Your task to perform on an android device: What's on my calendar tomorrow? Image 0: 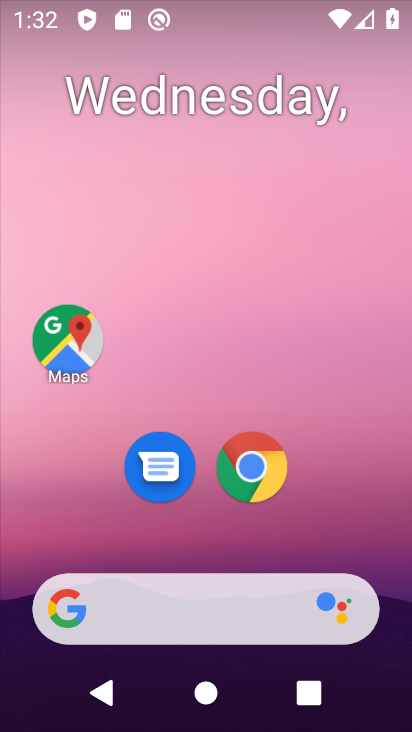
Step 0: drag from (365, 515) to (213, 69)
Your task to perform on an android device: What's on my calendar tomorrow? Image 1: 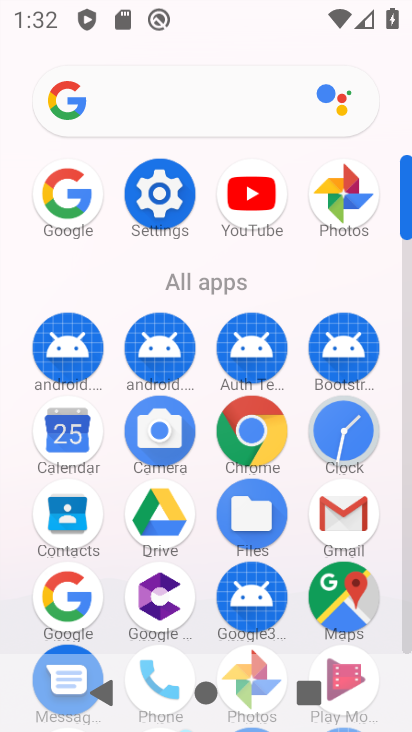
Step 1: click (71, 443)
Your task to perform on an android device: What's on my calendar tomorrow? Image 2: 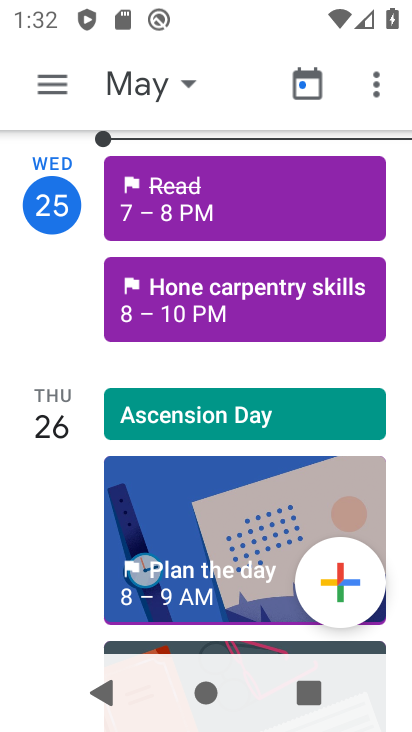
Step 2: task complete